Your task to perform on an android device: Go to wifi settings Image 0: 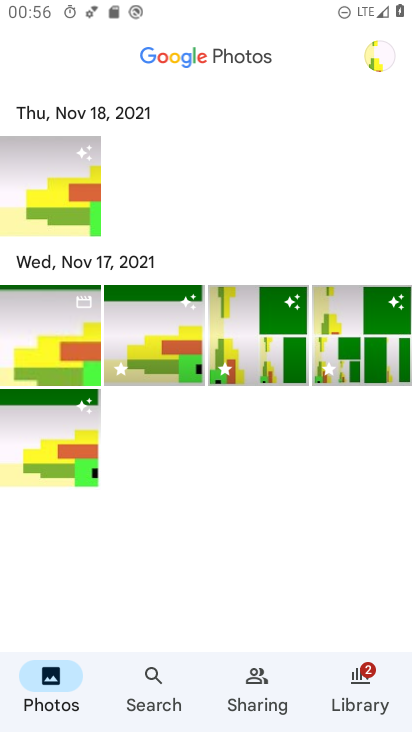
Step 0: press home button
Your task to perform on an android device: Go to wifi settings Image 1: 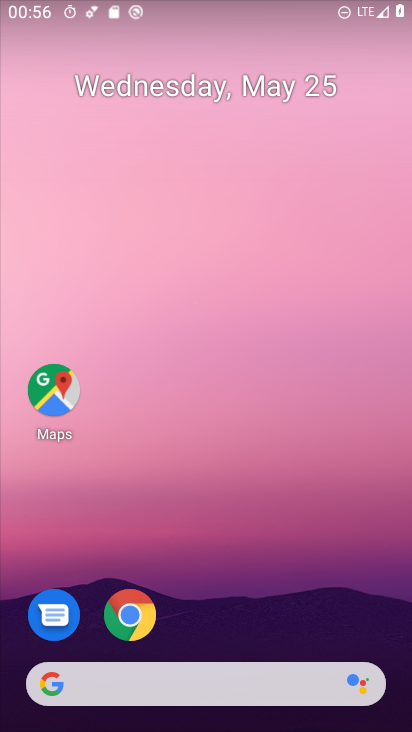
Step 1: drag from (272, 693) to (272, 33)
Your task to perform on an android device: Go to wifi settings Image 2: 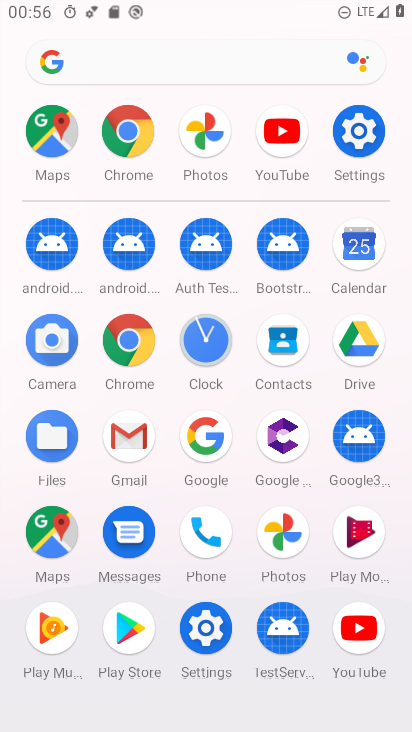
Step 2: click (362, 121)
Your task to perform on an android device: Go to wifi settings Image 3: 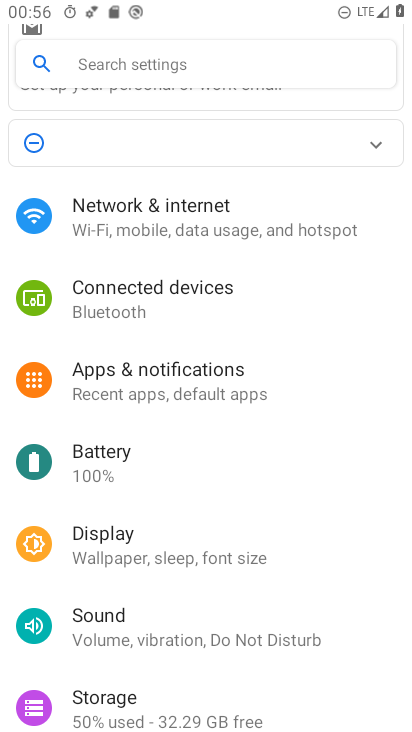
Step 3: click (211, 217)
Your task to perform on an android device: Go to wifi settings Image 4: 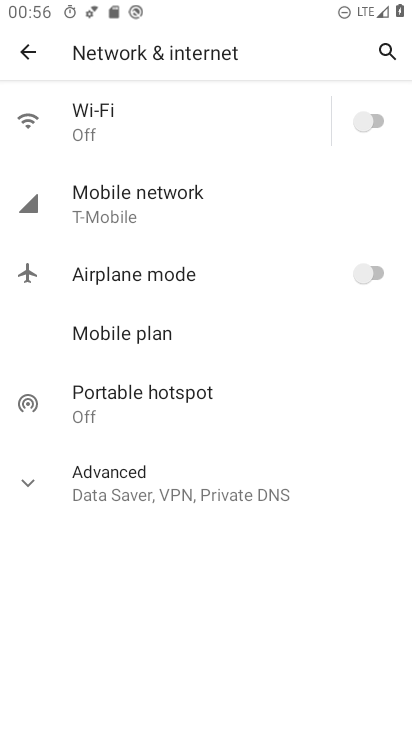
Step 4: click (178, 108)
Your task to perform on an android device: Go to wifi settings Image 5: 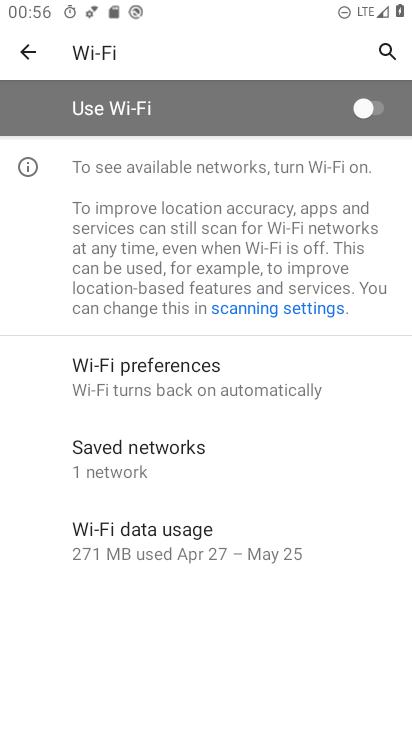
Step 5: task complete